Your task to perform on an android device: toggle notifications settings in the gmail app Image 0: 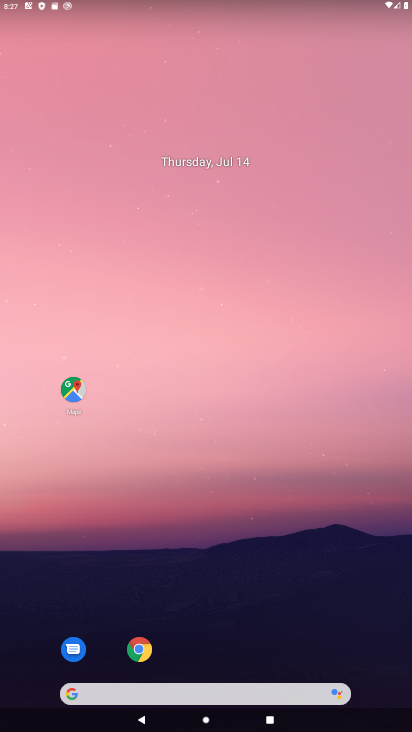
Step 0: drag from (241, 718) to (205, 6)
Your task to perform on an android device: toggle notifications settings in the gmail app Image 1: 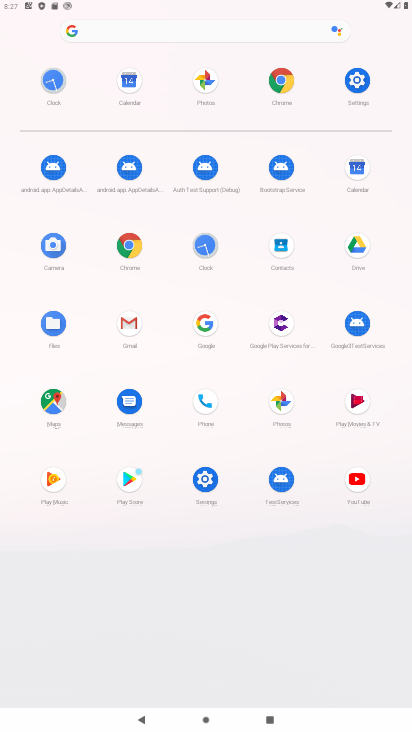
Step 1: click (136, 333)
Your task to perform on an android device: toggle notifications settings in the gmail app Image 2: 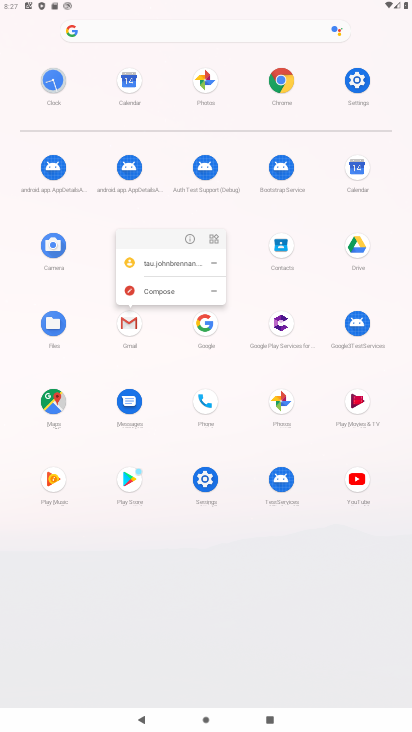
Step 2: click (189, 239)
Your task to perform on an android device: toggle notifications settings in the gmail app Image 3: 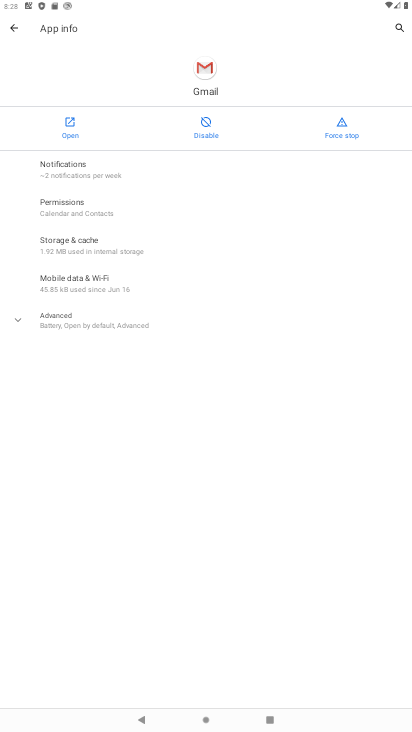
Step 3: click (137, 158)
Your task to perform on an android device: toggle notifications settings in the gmail app Image 4: 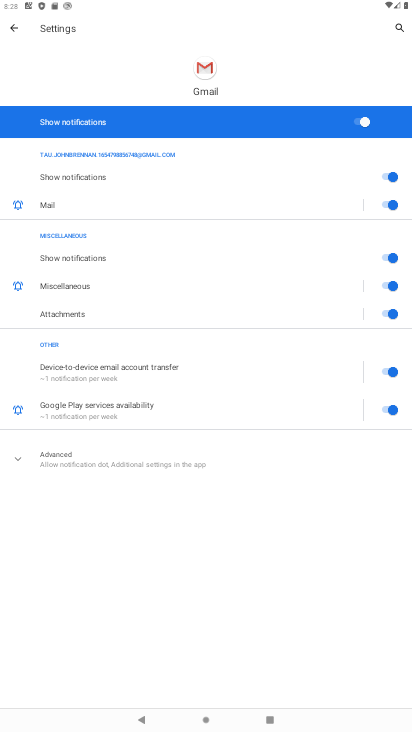
Step 4: click (365, 120)
Your task to perform on an android device: toggle notifications settings in the gmail app Image 5: 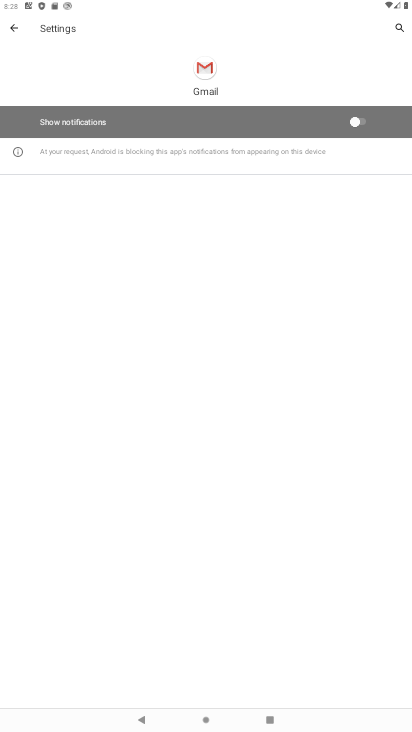
Step 5: task complete